Your task to perform on an android device: add a label to a message in the gmail app Image 0: 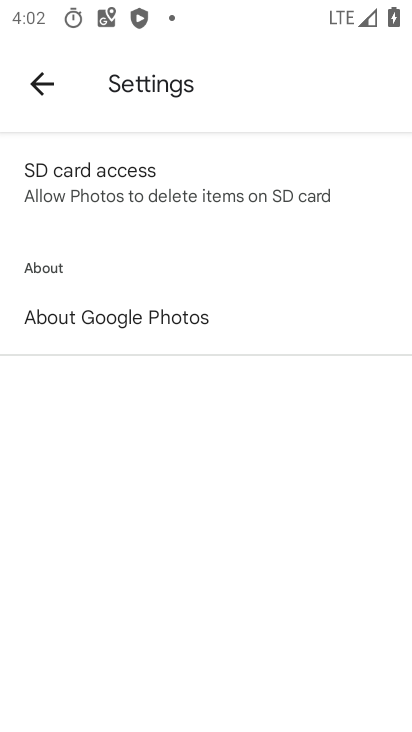
Step 0: press home button
Your task to perform on an android device: add a label to a message in the gmail app Image 1: 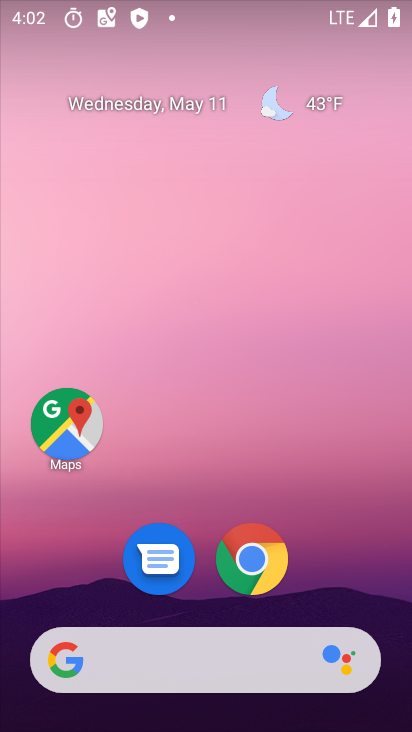
Step 1: drag from (302, 378) to (198, 1)
Your task to perform on an android device: add a label to a message in the gmail app Image 2: 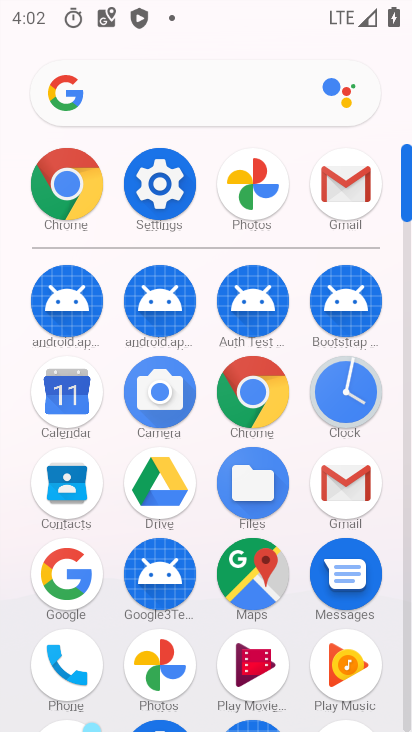
Step 2: click (342, 499)
Your task to perform on an android device: add a label to a message in the gmail app Image 3: 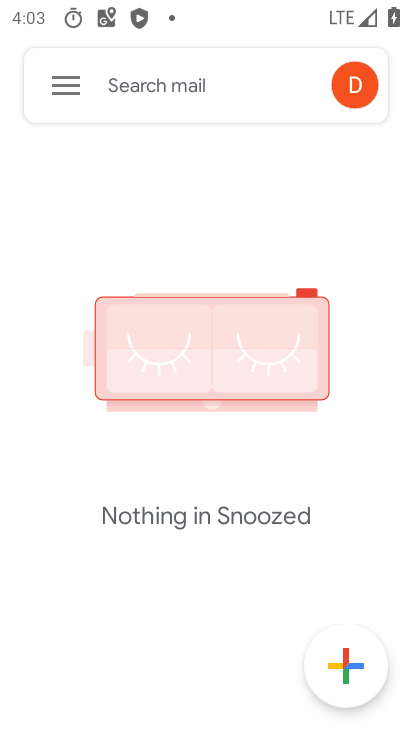
Step 3: click (62, 88)
Your task to perform on an android device: add a label to a message in the gmail app Image 4: 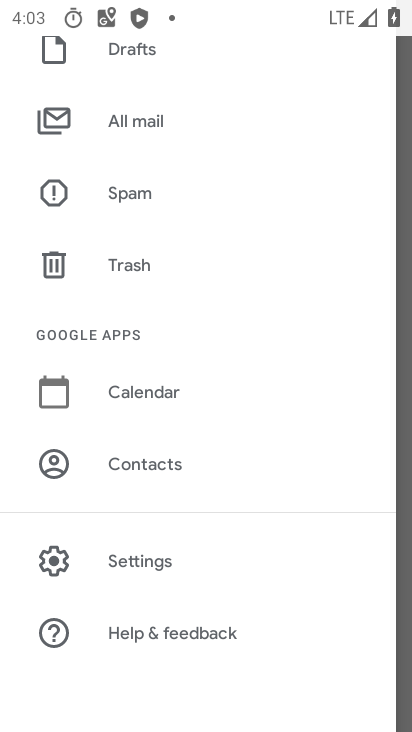
Step 4: click (171, 118)
Your task to perform on an android device: add a label to a message in the gmail app Image 5: 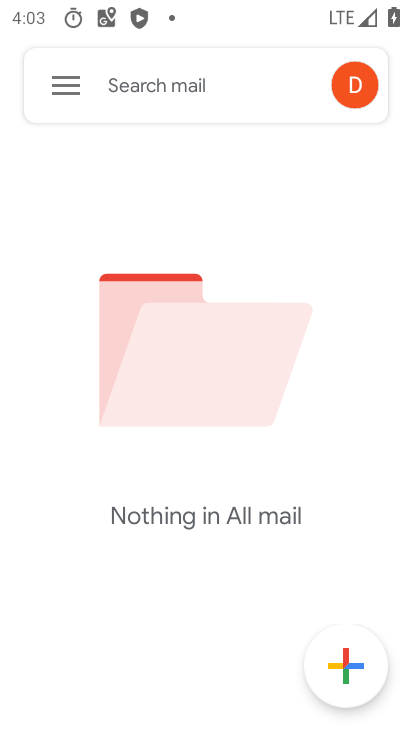
Step 5: task complete